Your task to perform on an android device: delete location history Image 0: 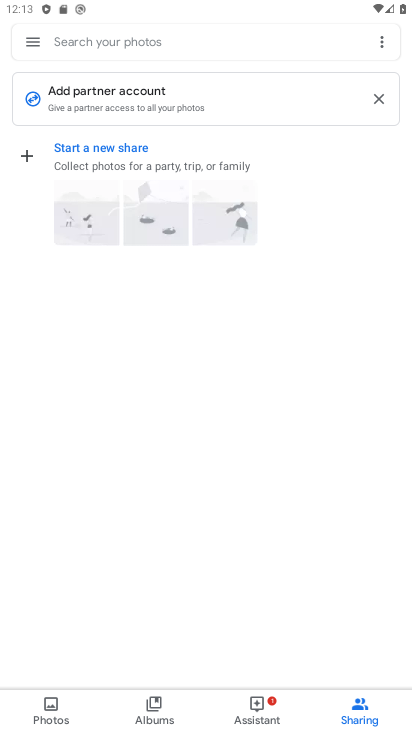
Step 0: press home button
Your task to perform on an android device: delete location history Image 1: 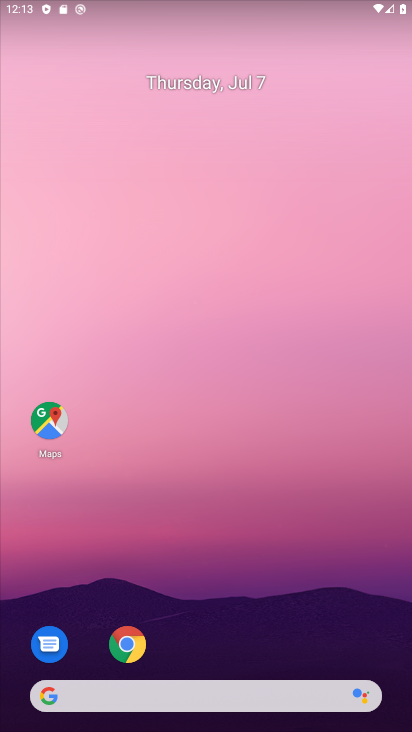
Step 1: drag from (210, 681) to (217, 0)
Your task to perform on an android device: delete location history Image 2: 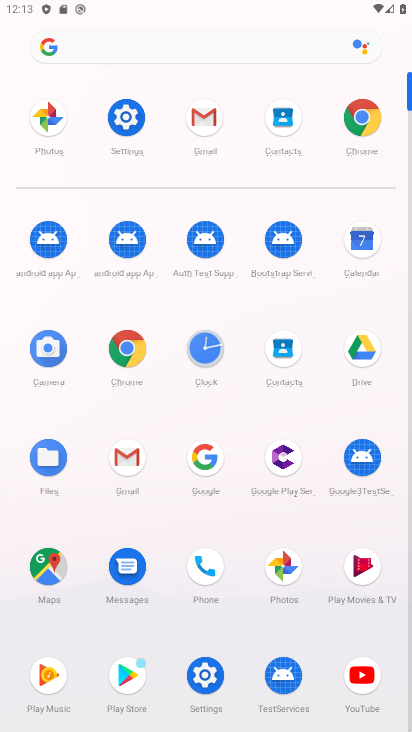
Step 2: click (51, 561)
Your task to perform on an android device: delete location history Image 3: 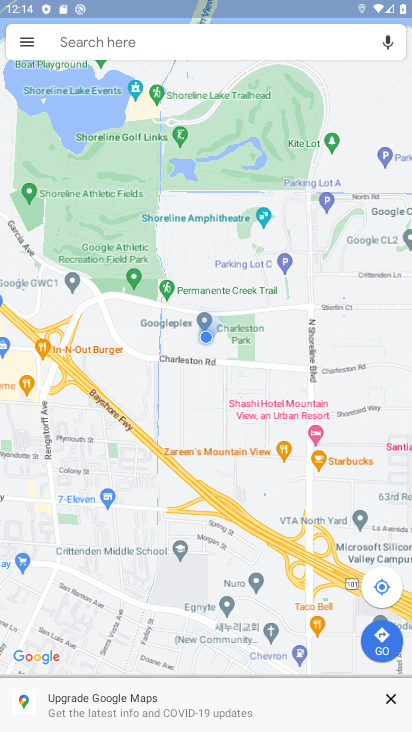
Step 3: click (22, 41)
Your task to perform on an android device: delete location history Image 4: 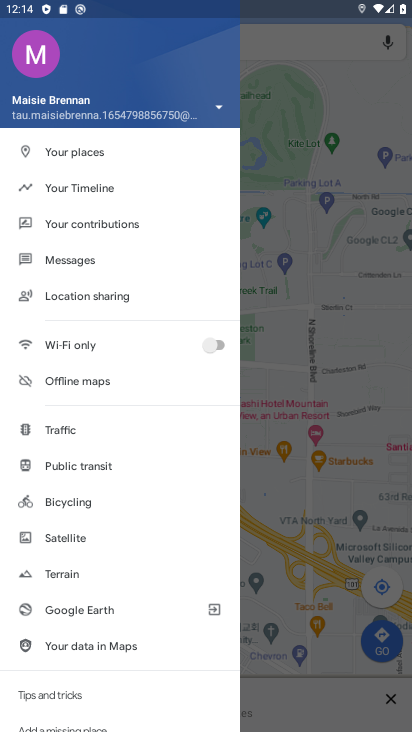
Step 4: click (107, 188)
Your task to perform on an android device: delete location history Image 5: 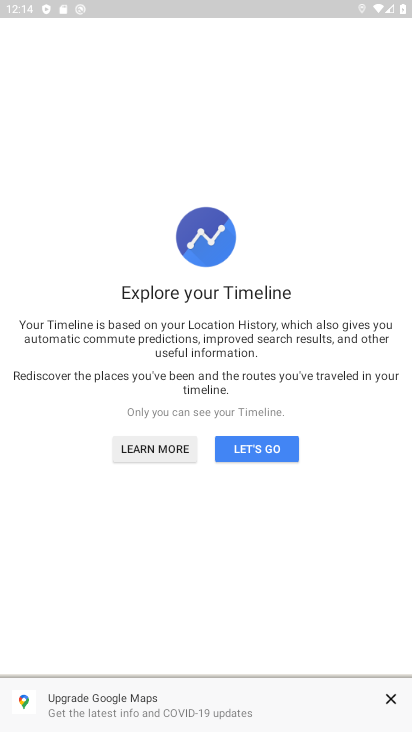
Step 5: click (236, 449)
Your task to perform on an android device: delete location history Image 6: 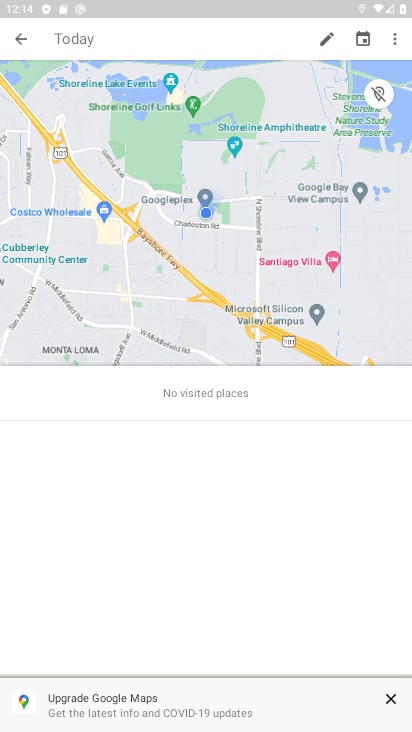
Step 6: click (395, 40)
Your task to perform on an android device: delete location history Image 7: 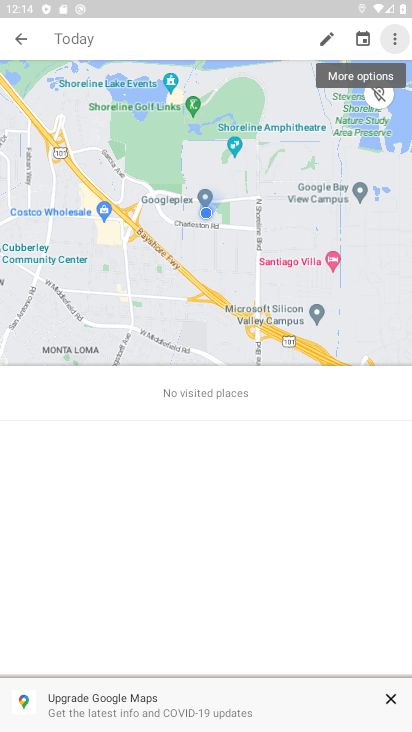
Step 7: click (395, 42)
Your task to perform on an android device: delete location history Image 8: 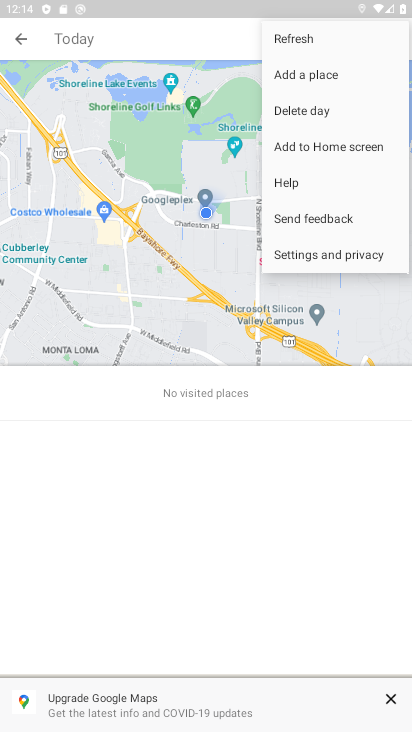
Step 8: click (320, 253)
Your task to perform on an android device: delete location history Image 9: 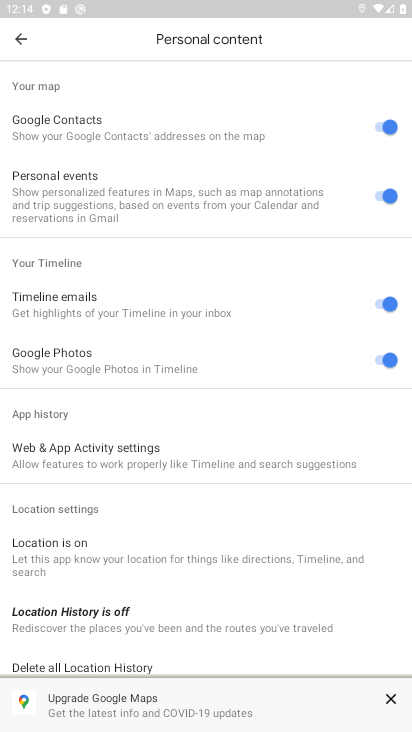
Step 9: drag from (211, 533) to (109, 5)
Your task to perform on an android device: delete location history Image 10: 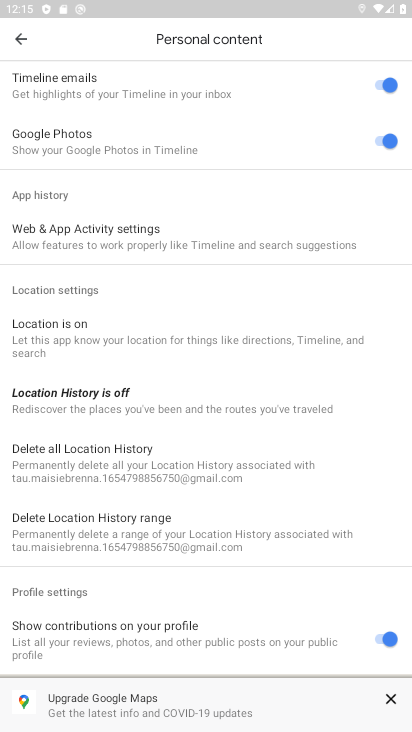
Step 10: click (139, 452)
Your task to perform on an android device: delete location history Image 11: 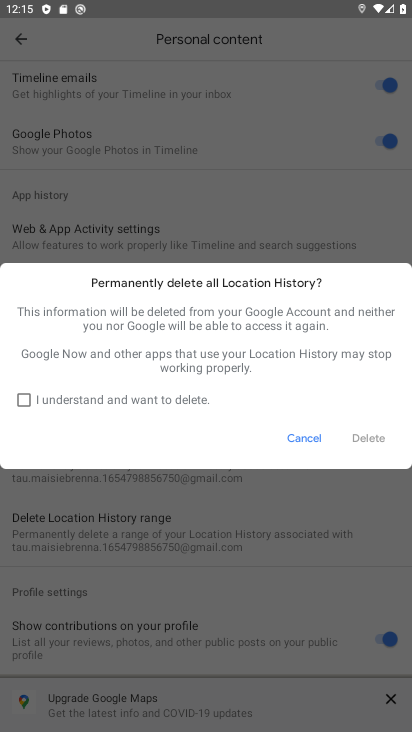
Step 11: click (47, 408)
Your task to perform on an android device: delete location history Image 12: 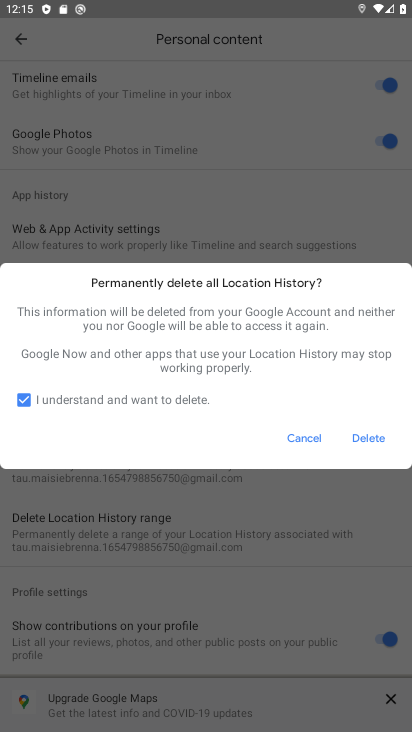
Step 12: click (382, 439)
Your task to perform on an android device: delete location history Image 13: 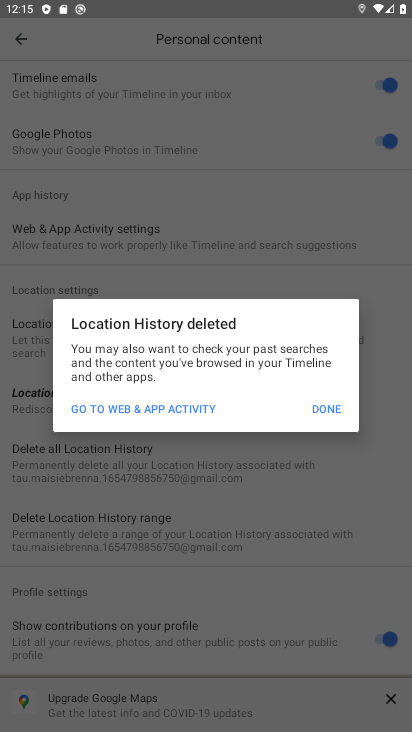
Step 13: click (327, 405)
Your task to perform on an android device: delete location history Image 14: 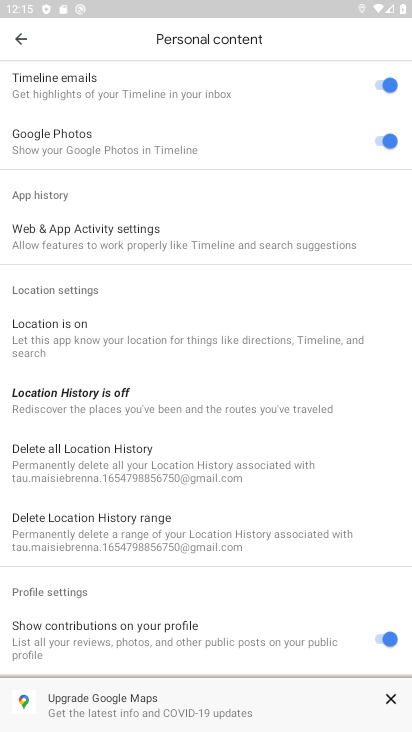
Step 14: task complete